Your task to perform on an android device: stop showing notifications on the lock screen Image 0: 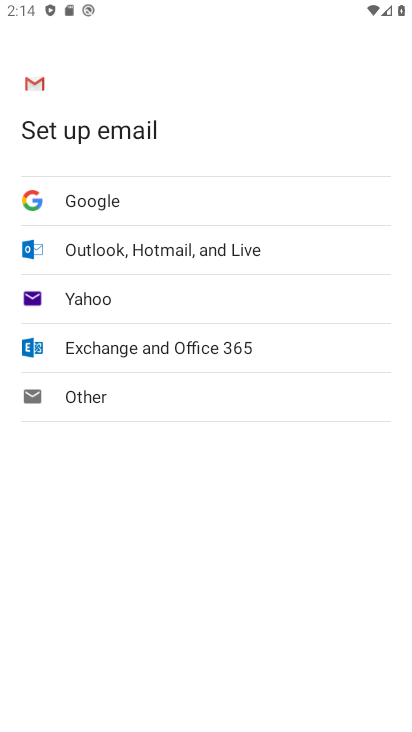
Step 0: press home button
Your task to perform on an android device: stop showing notifications on the lock screen Image 1: 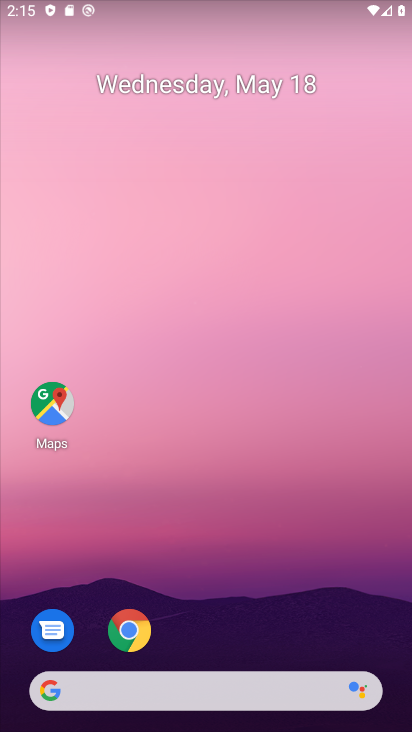
Step 1: drag from (213, 654) to (285, 5)
Your task to perform on an android device: stop showing notifications on the lock screen Image 2: 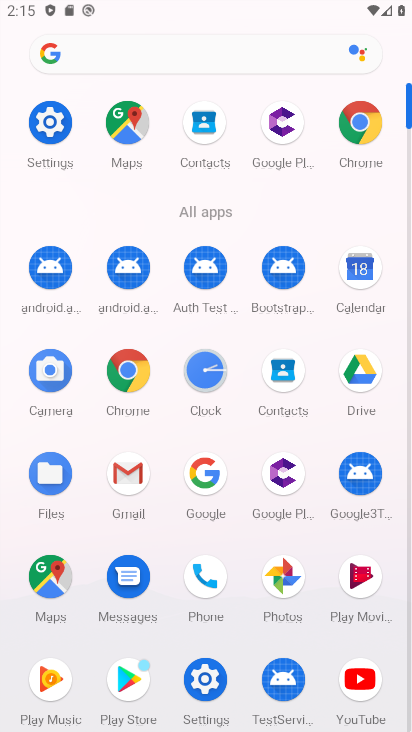
Step 2: click (46, 115)
Your task to perform on an android device: stop showing notifications on the lock screen Image 3: 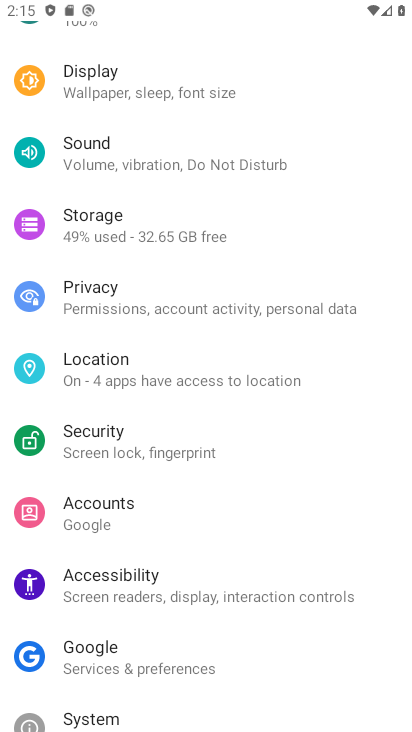
Step 3: drag from (125, 110) to (145, 677)
Your task to perform on an android device: stop showing notifications on the lock screen Image 4: 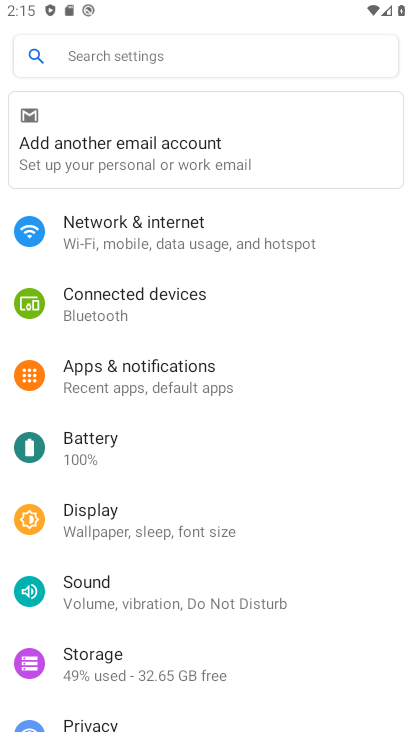
Step 4: click (233, 368)
Your task to perform on an android device: stop showing notifications on the lock screen Image 5: 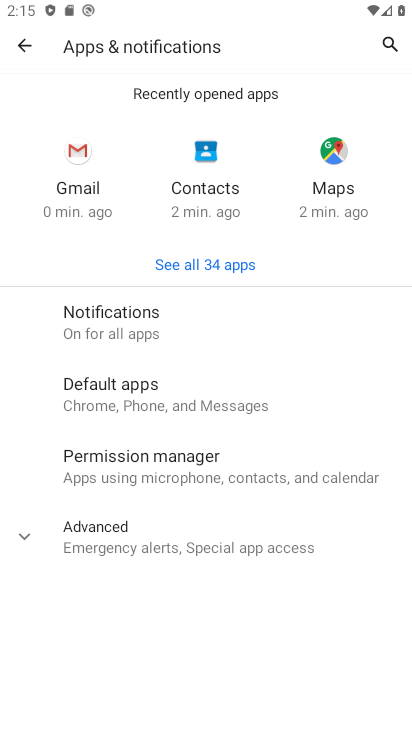
Step 5: click (141, 313)
Your task to perform on an android device: stop showing notifications on the lock screen Image 6: 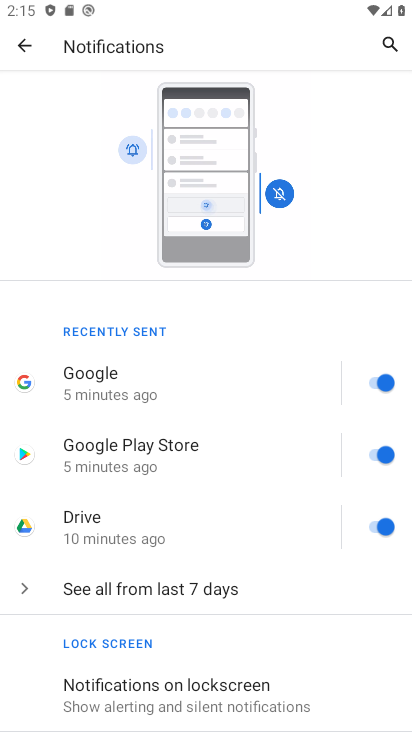
Step 6: click (215, 682)
Your task to perform on an android device: stop showing notifications on the lock screen Image 7: 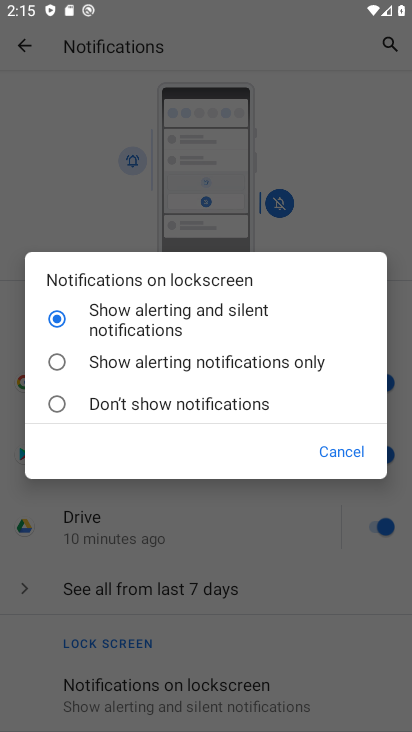
Step 7: click (56, 400)
Your task to perform on an android device: stop showing notifications on the lock screen Image 8: 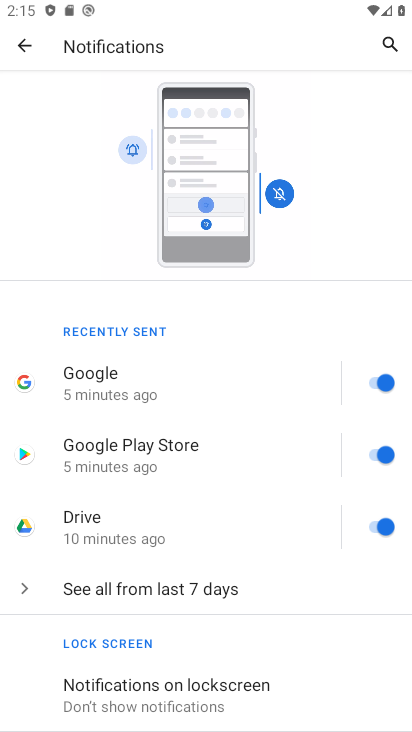
Step 8: task complete